Your task to perform on an android device: turn on priority inbox in the gmail app Image 0: 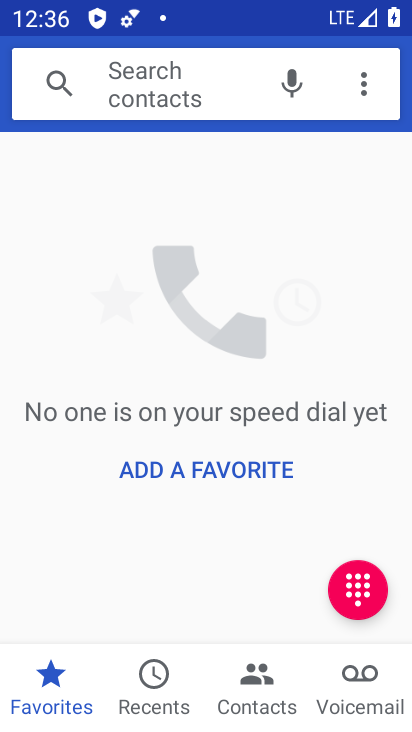
Step 0: press home button
Your task to perform on an android device: turn on priority inbox in the gmail app Image 1: 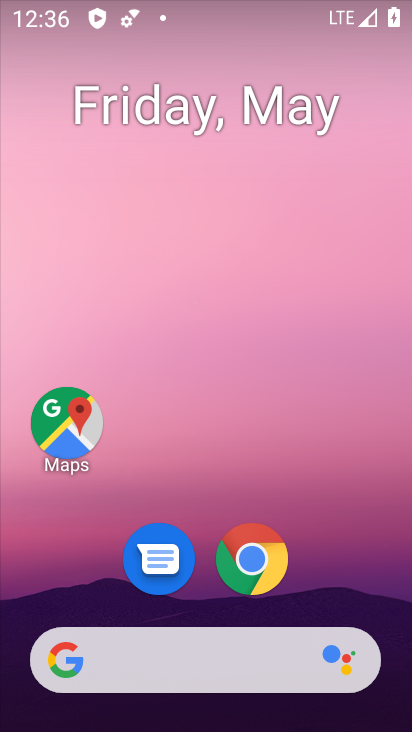
Step 1: drag from (351, 565) to (347, 178)
Your task to perform on an android device: turn on priority inbox in the gmail app Image 2: 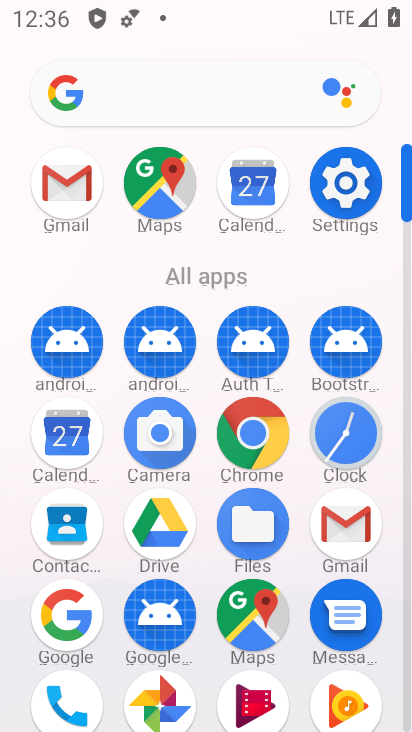
Step 2: click (82, 179)
Your task to perform on an android device: turn on priority inbox in the gmail app Image 3: 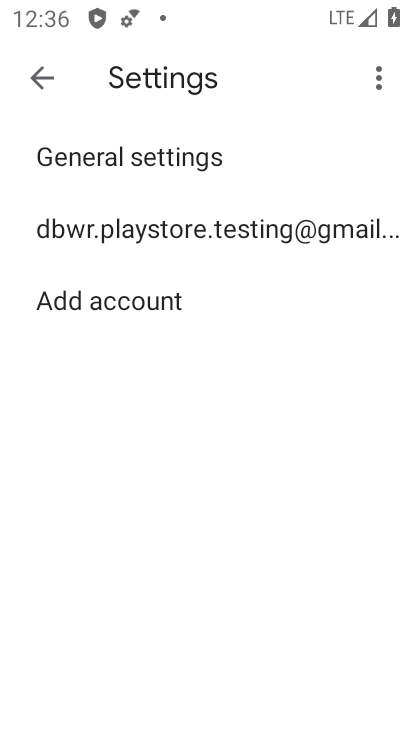
Step 3: click (138, 214)
Your task to perform on an android device: turn on priority inbox in the gmail app Image 4: 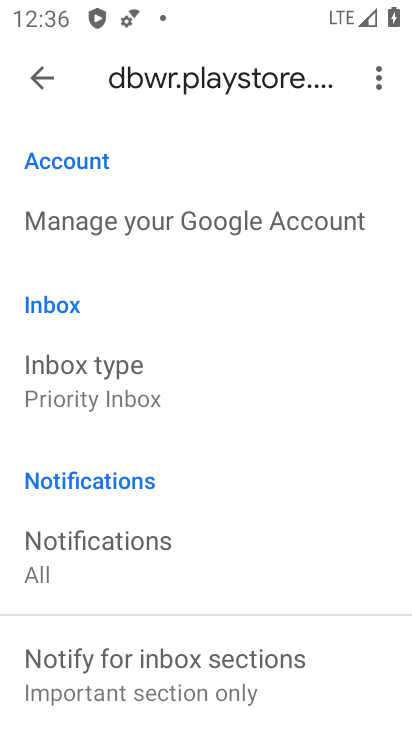
Step 4: click (92, 368)
Your task to perform on an android device: turn on priority inbox in the gmail app Image 5: 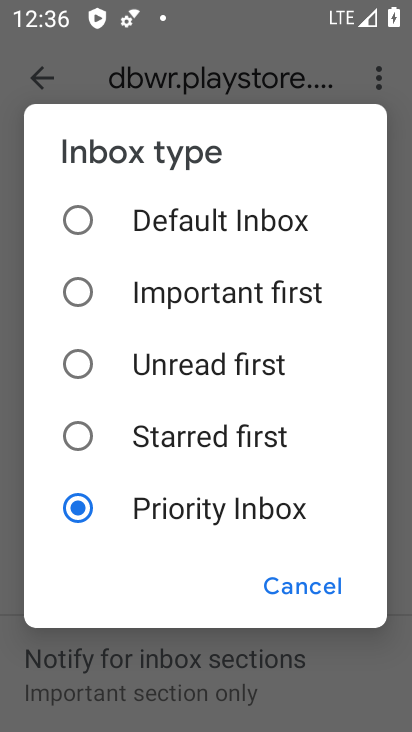
Step 5: task complete